Your task to perform on an android device: uninstall "Expedia: Hotels, Flights & Car" Image 0: 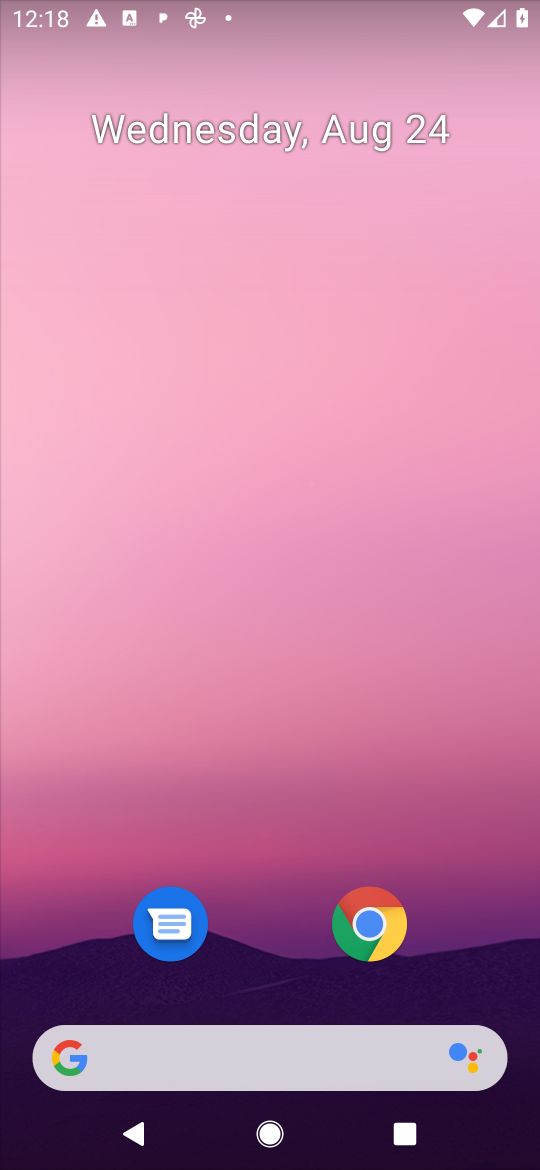
Step 0: press home button
Your task to perform on an android device: uninstall "Expedia: Hotels, Flights & Car" Image 1: 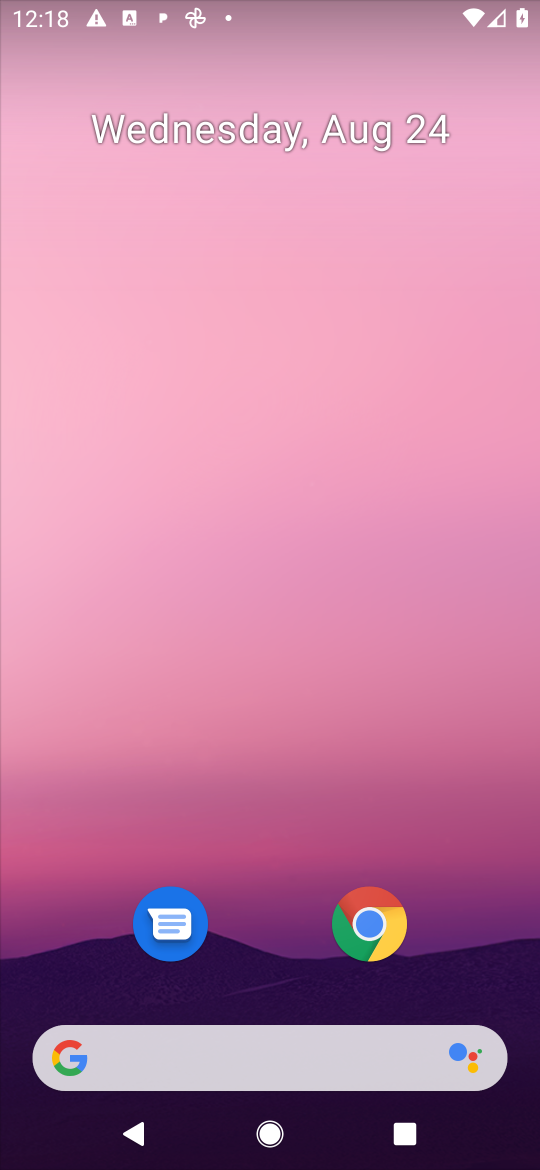
Step 1: drag from (470, 948) to (477, 275)
Your task to perform on an android device: uninstall "Expedia: Hotels, Flights & Car" Image 2: 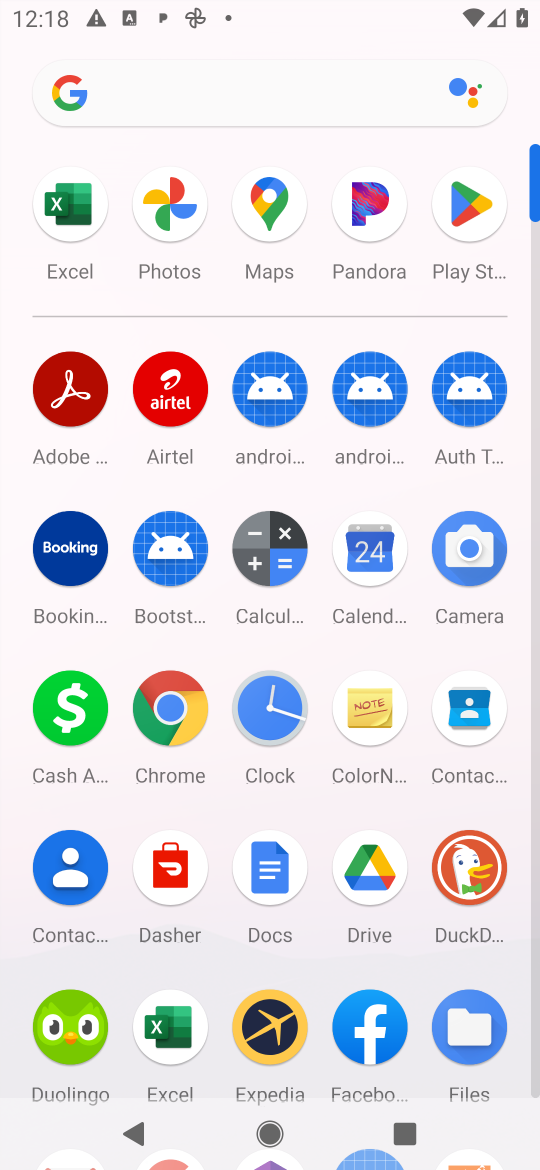
Step 2: click (476, 211)
Your task to perform on an android device: uninstall "Expedia: Hotels, Flights & Car" Image 3: 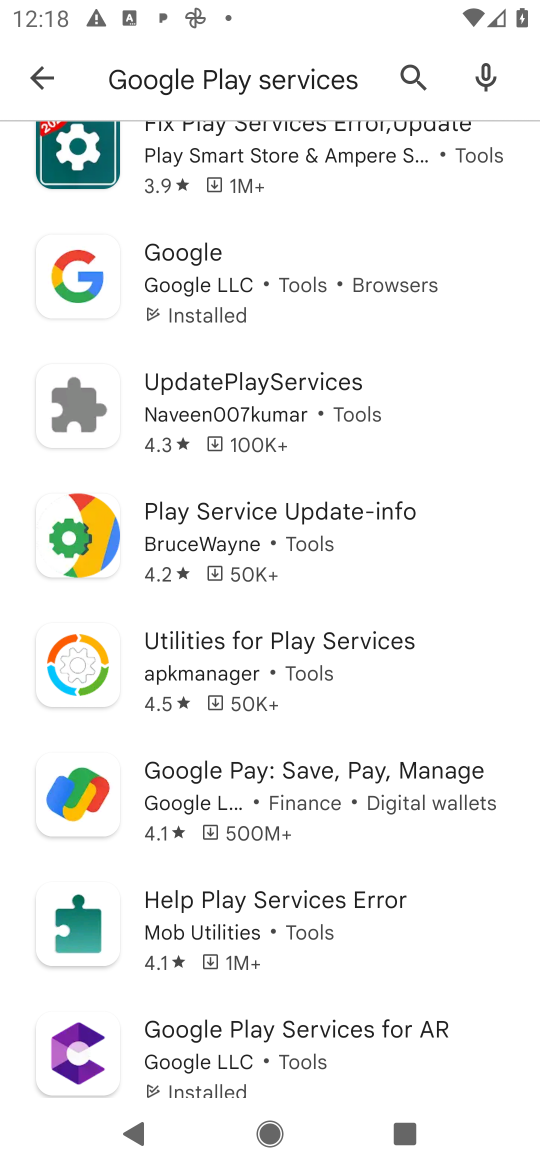
Step 3: press back button
Your task to perform on an android device: uninstall "Expedia: Hotels, Flights & Car" Image 4: 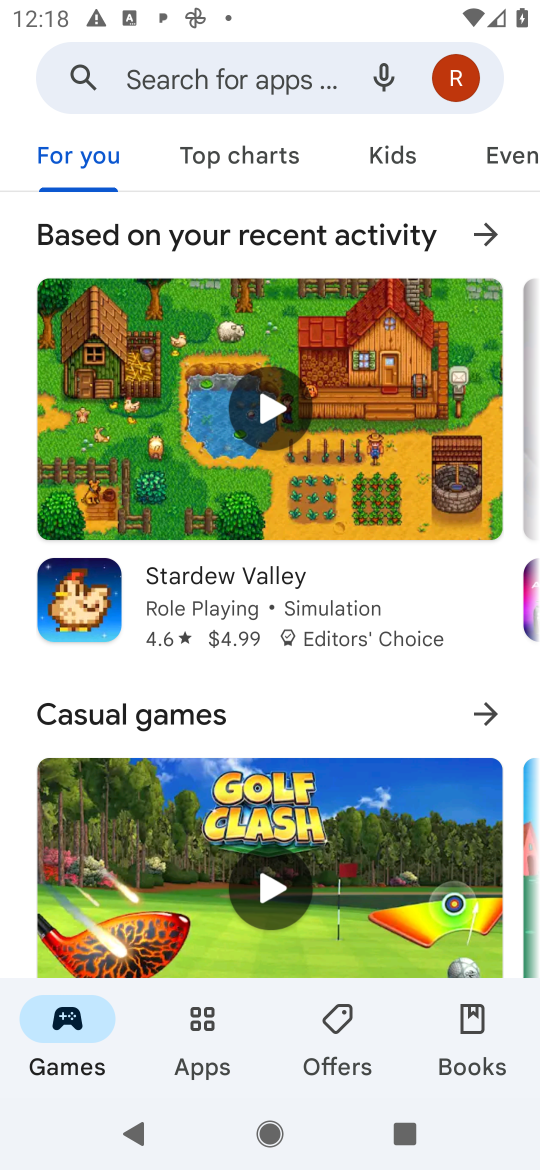
Step 4: click (247, 70)
Your task to perform on an android device: uninstall "Expedia: Hotels, Flights & Car" Image 5: 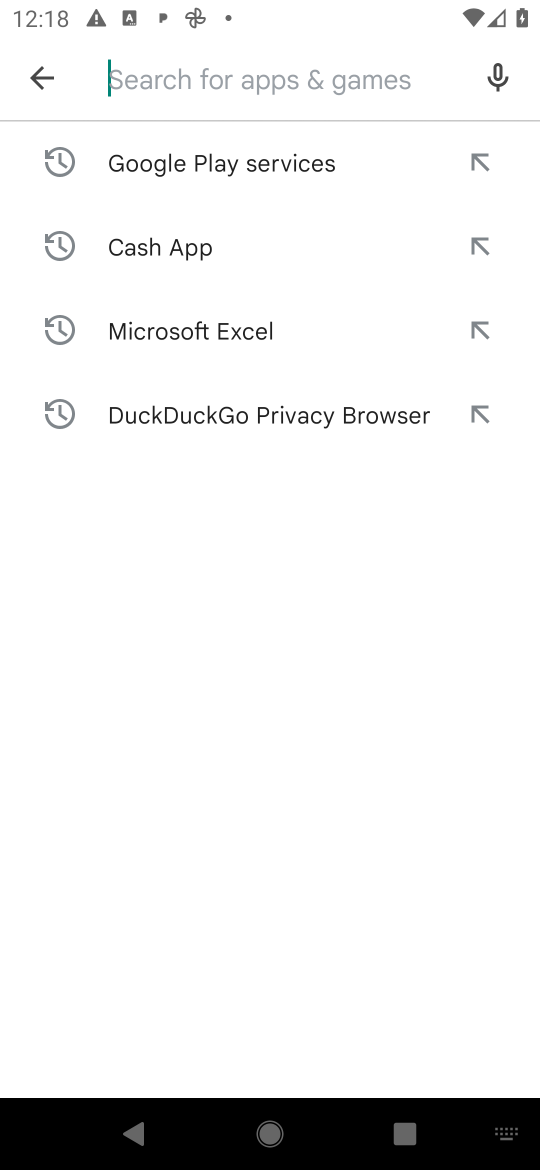
Step 5: type "Expedia: Hotels, Flights & Car"
Your task to perform on an android device: uninstall "Expedia: Hotels, Flights & Car" Image 6: 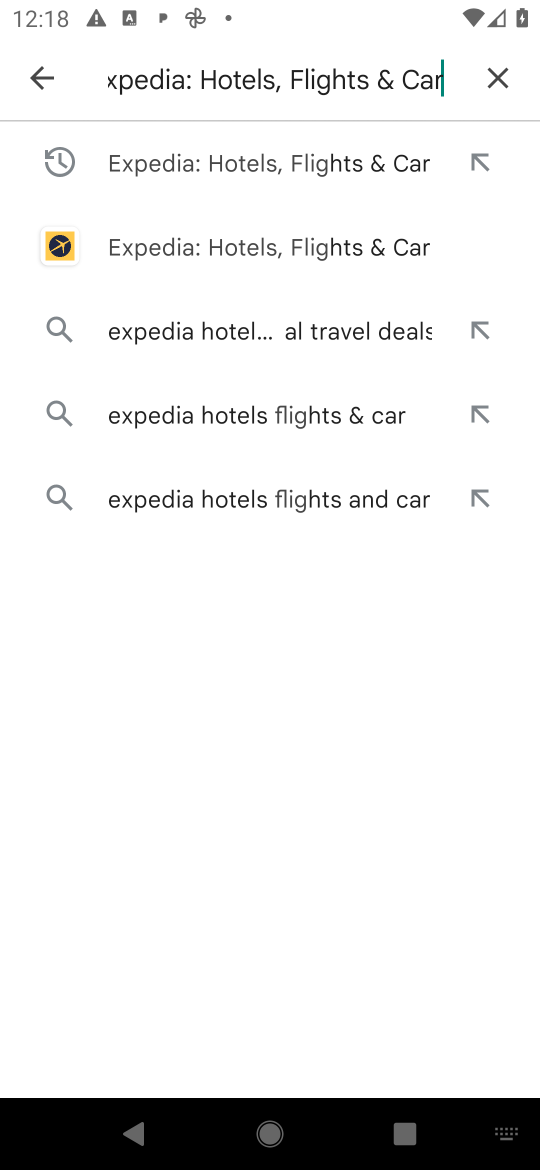
Step 6: press enter
Your task to perform on an android device: uninstall "Expedia: Hotels, Flights & Car" Image 7: 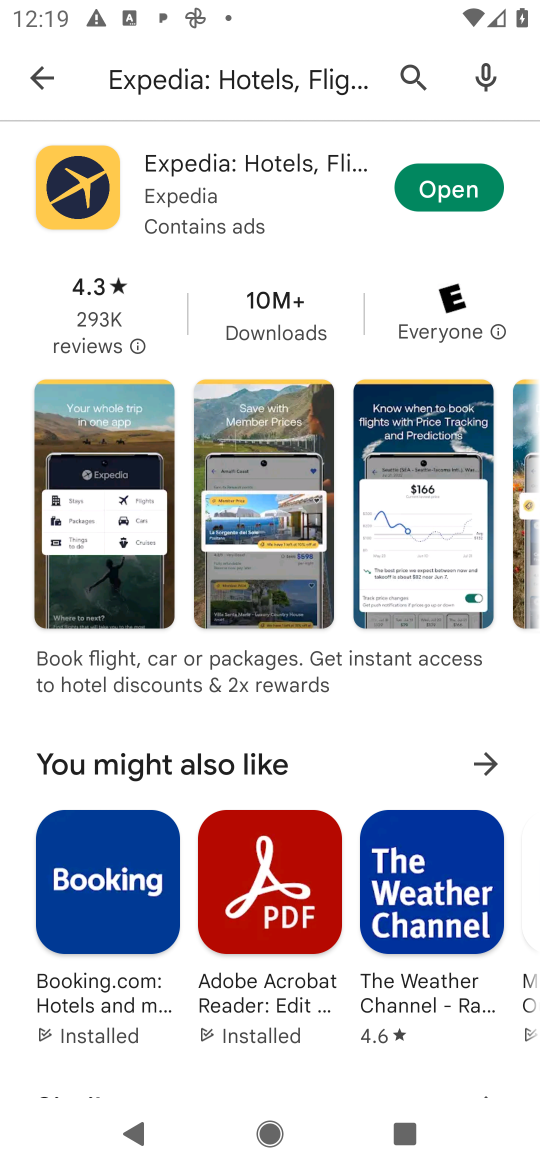
Step 7: task complete